Your task to perform on an android device: find photos in the google photos app Image 0: 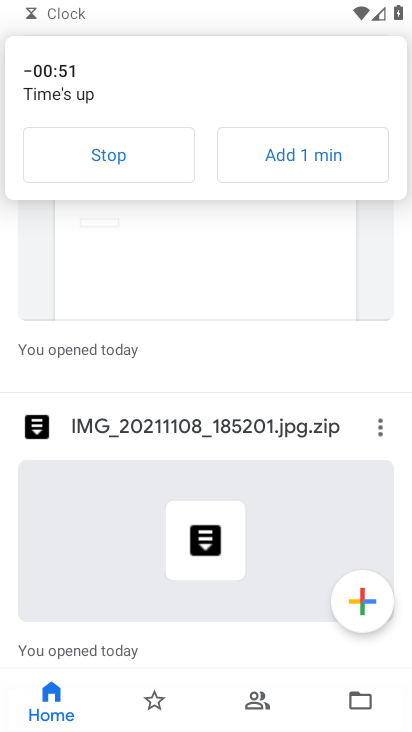
Step 0: press home button
Your task to perform on an android device: find photos in the google photos app Image 1: 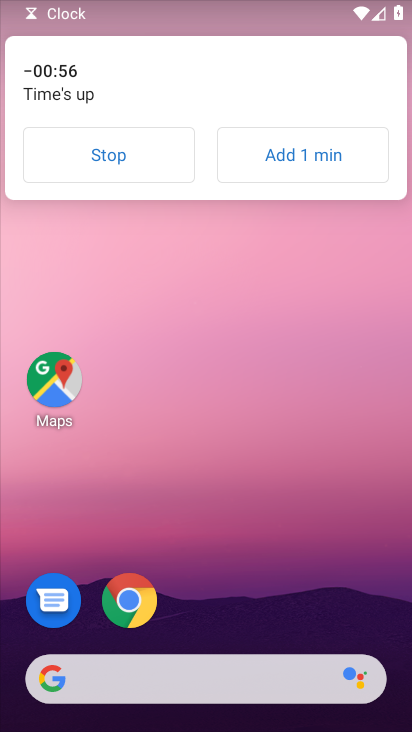
Step 1: drag from (207, 710) to (215, 80)
Your task to perform on an android device: find photos in the google photos app Image 2: 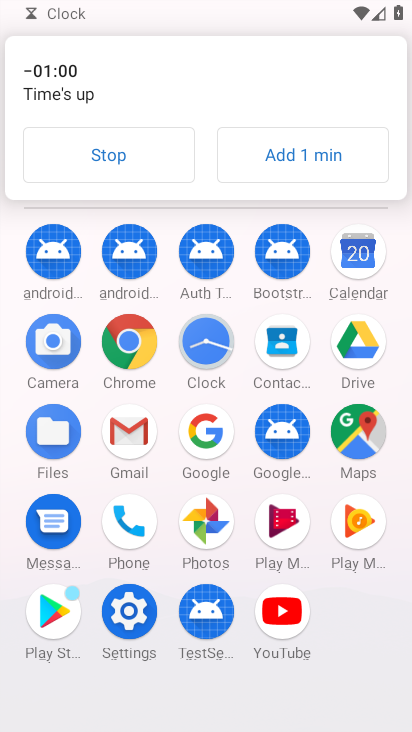
Step 2: click (202, 515)
Your task to perform on an android device: find photos in the google photos app Image 3: 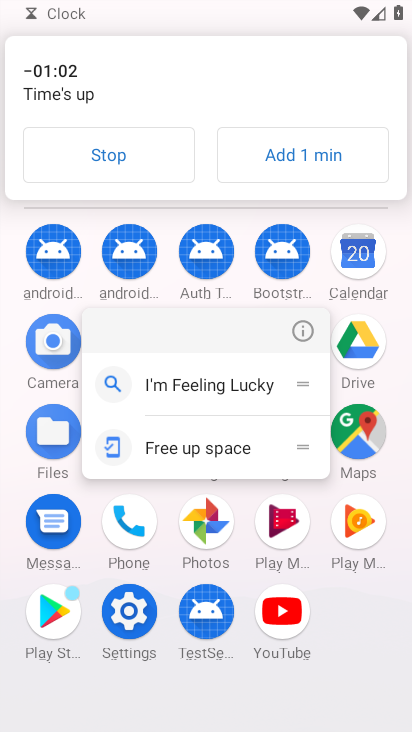
Step 3: click (204, 511)
Your task to perform on an android device: find photos in the google photos app Image 4: 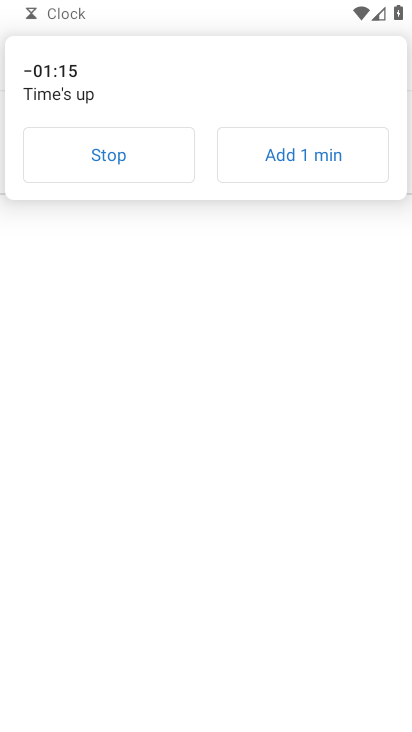
Step 4: click (105, 158)
Your task to perform on an android device: find photos in the google photos app Image 5: 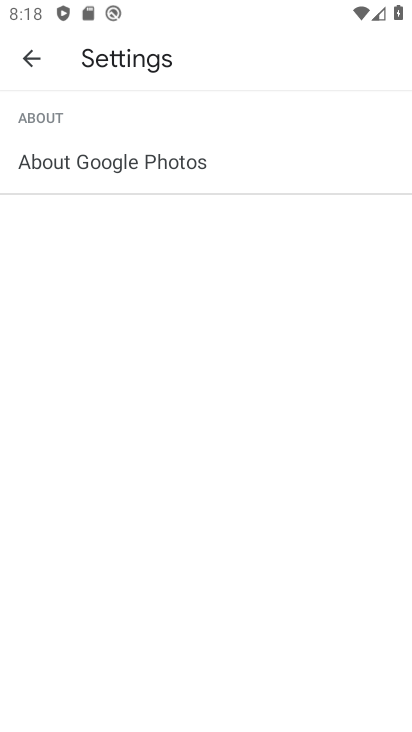
Step 5: click (27, 58)
Your task to perform on an android device: find photos in the google photos app Image 6: 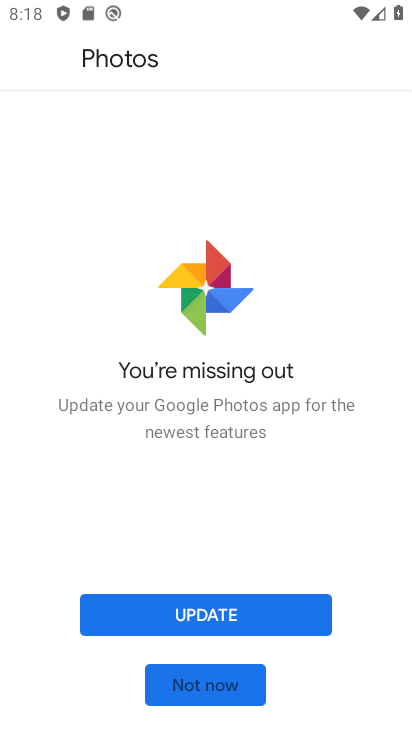
Step 6: click (210, 683)
Your task to perform on an android device: find photos in the google photos app Image 7: 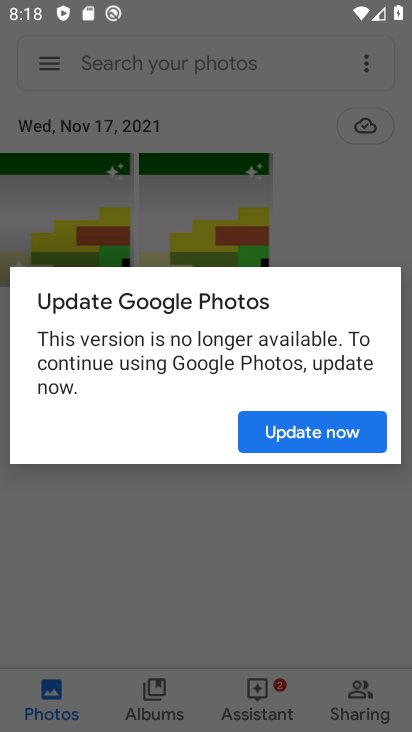
Step 7: click (136, 573)
Your task to perform on an android device: find photos in the google photos app Image 8: 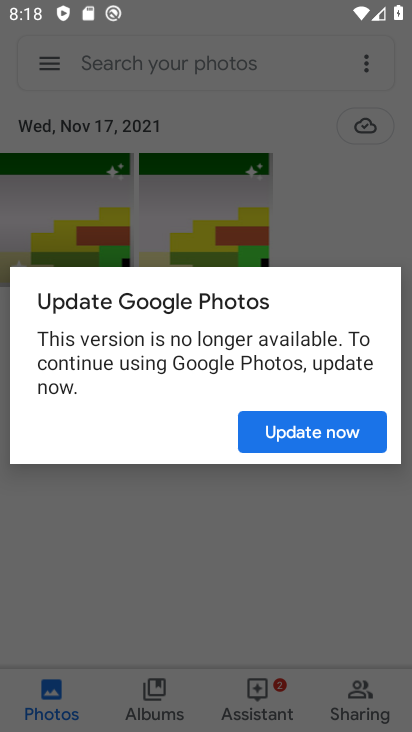
Step 8: click (347, 423)
Your task to perform on an android device: find photos in the google photos app Image 9: 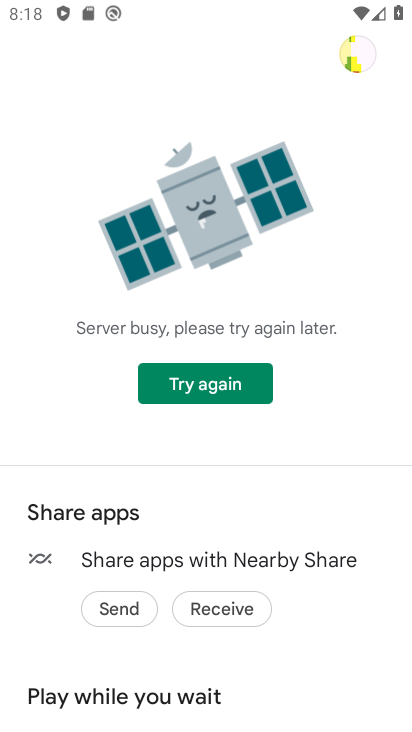
Step 9: click (169, 396)
Your task to perform on an android device: find photos in the google photos app Image 10: 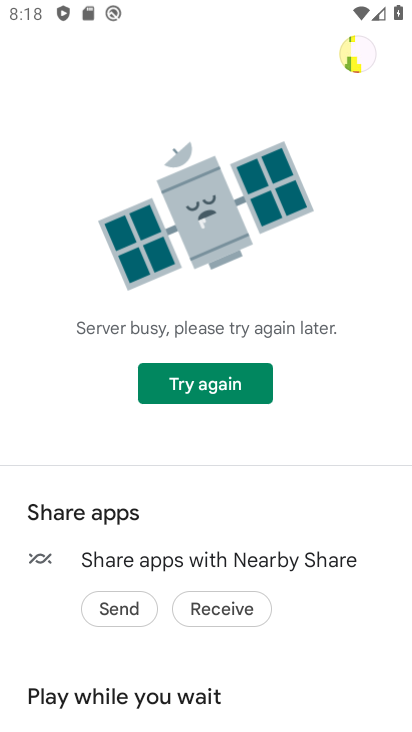
Step 10: task complete